Your task to perform on an android device: Go to wifi settings Image 0: 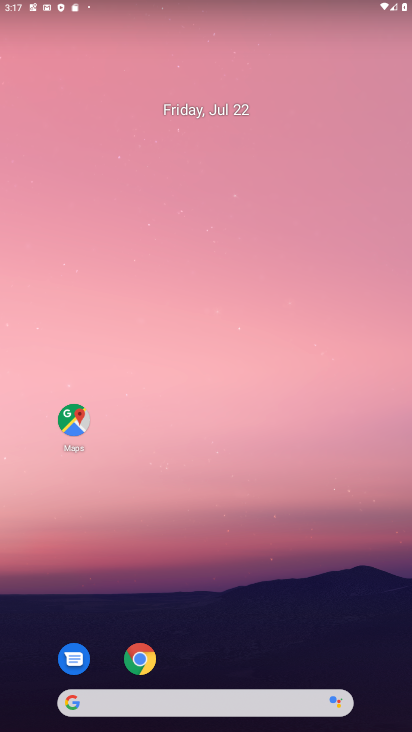
Step 0: drag from (163, 8) to (265, 583)
Your task to perform on an android device: Go to wifi settings Image 1: 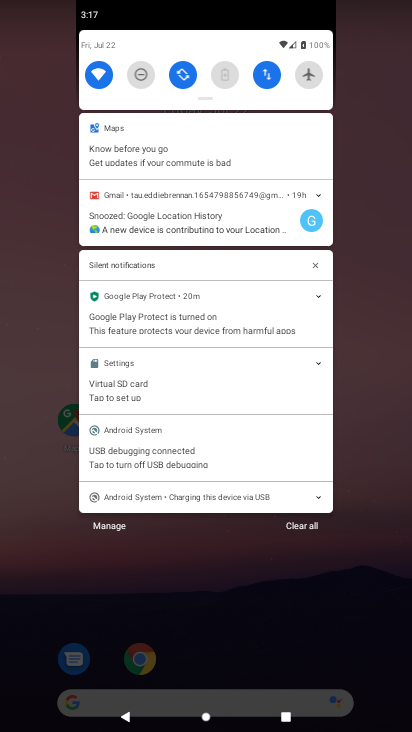
Step 1: click (92, 82)
Your task to perform on an android device: Go to wifi settings Image 2: 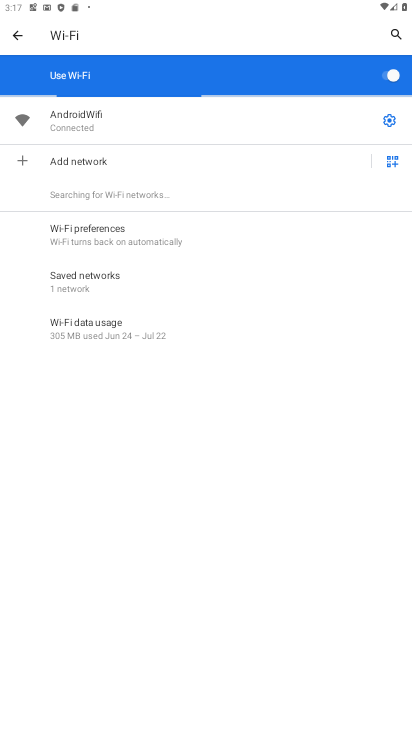
Step 2: task complete